Your task to perform on an android device: clear history in the chrome app Image 0: 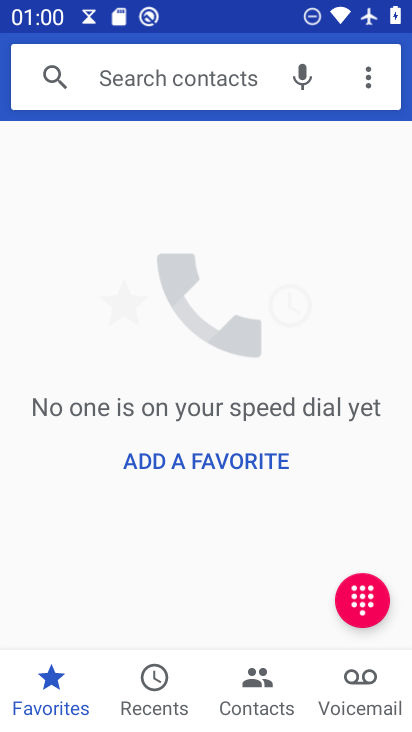
Step 0: press home button
Your task to perform on an android device: clear history in the chrome app Image 1: 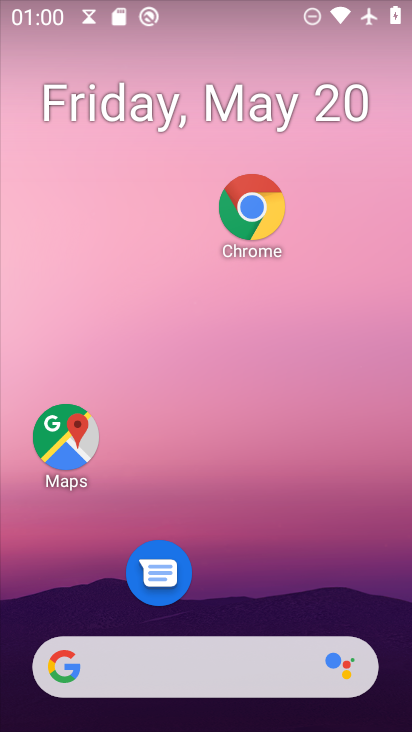
Step 1: click (245, 208)
Your task to perform on an android device: clear history in the chrome app Image 2: 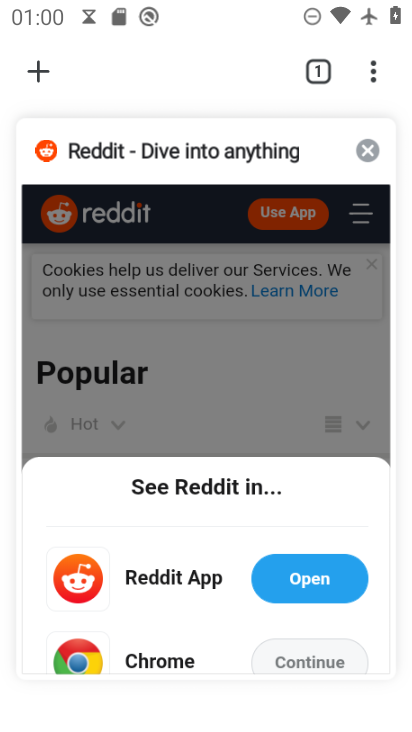
Step 2: click (365, 65)
Your task to perform on an android device: clear history in the chrome app Image 3: 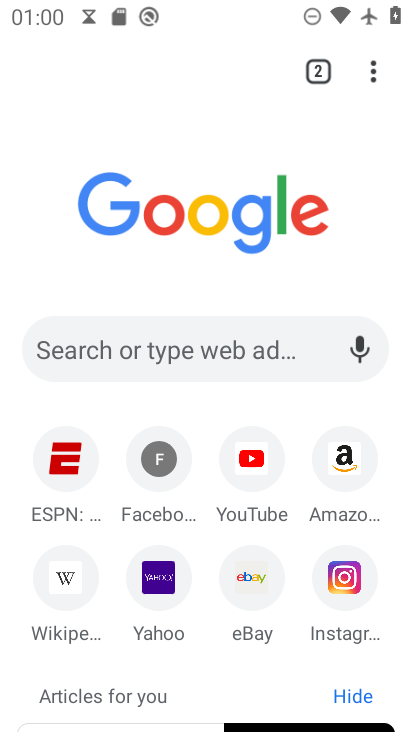
Step 3: click (369, 76)
Your task to perform on an android device: clear history in the chrome app Image 4: 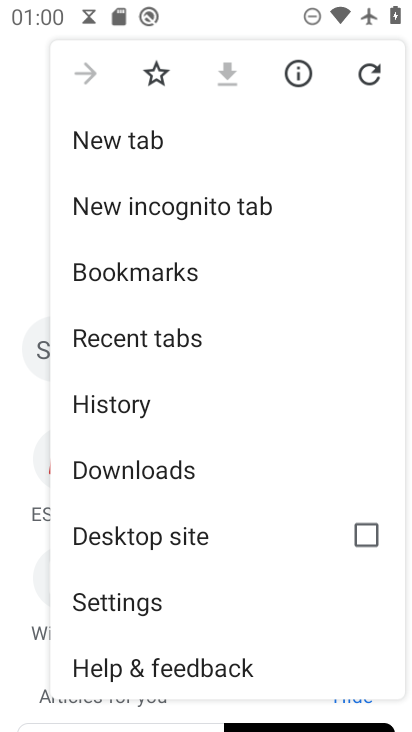
Step 4: click (139, 383)
Your task to perform on an android device: clear history in the chrome app Image 5: 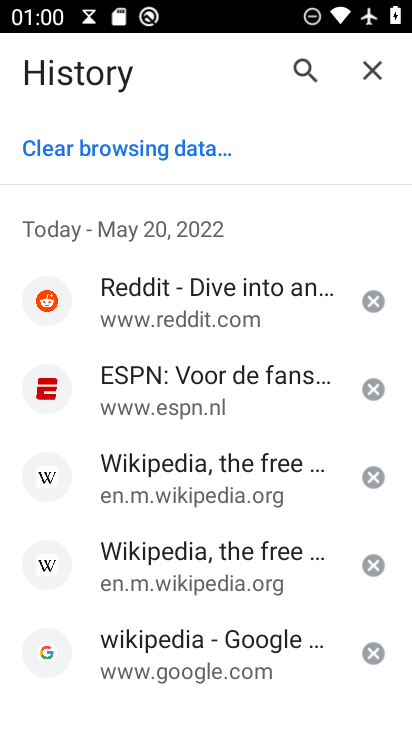
Step 5: click (99, 138)
Your task to perform on an android device: clear history in the chrome app Image 6: 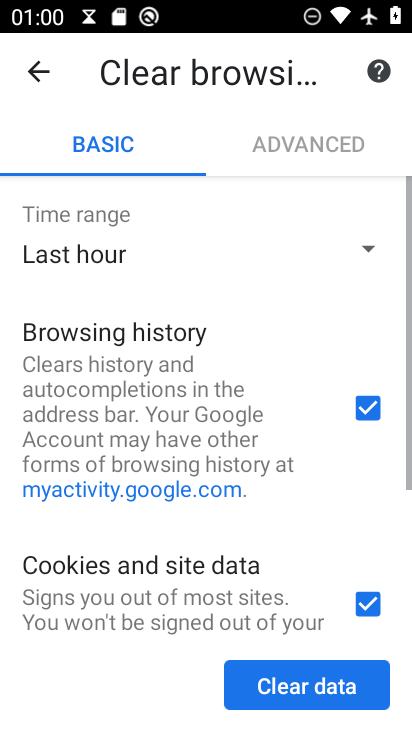
Step 6: click (275, 675)
Your task to perform on an android device: clear history in the chrome app Image 7: 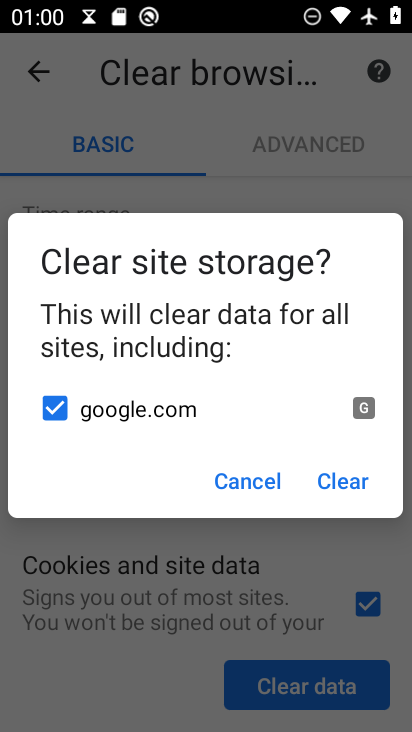
Step 7: click (363, 484)
Your task to perform on an android device: clear history in the chrome app Image 8: 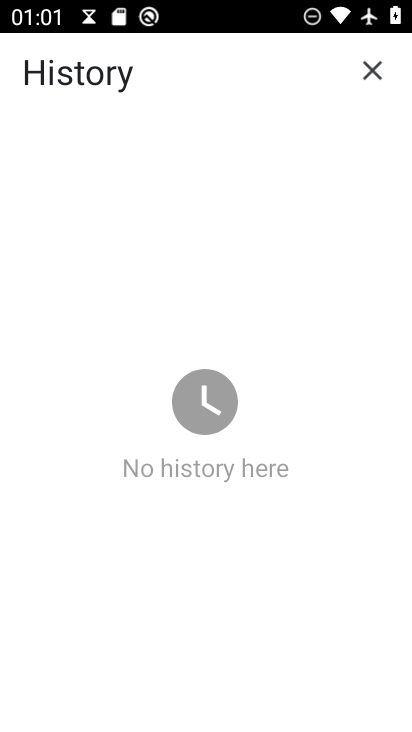
Step 8: task complete